Your task to perform on an android device: Show the shopping cart on amazon. Add "usb-c to usb-a" to the cart on amazon Image 0: 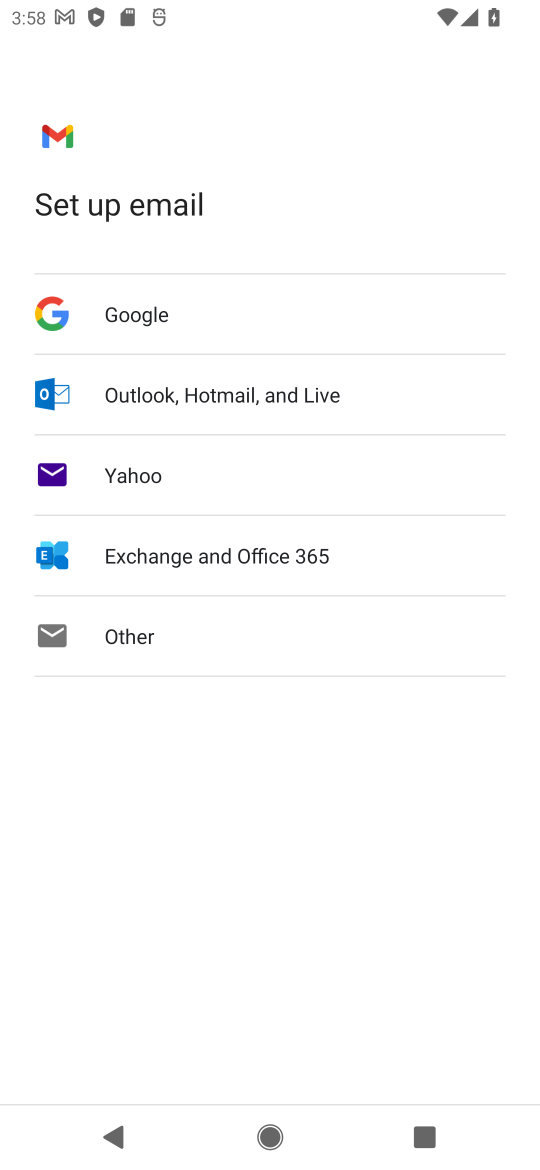
Step 0: press home button
Your task to perform on an android device: Show the shopping cart on amazon. Add "usb-c to usb-a" to the cart on amazon Image 1: 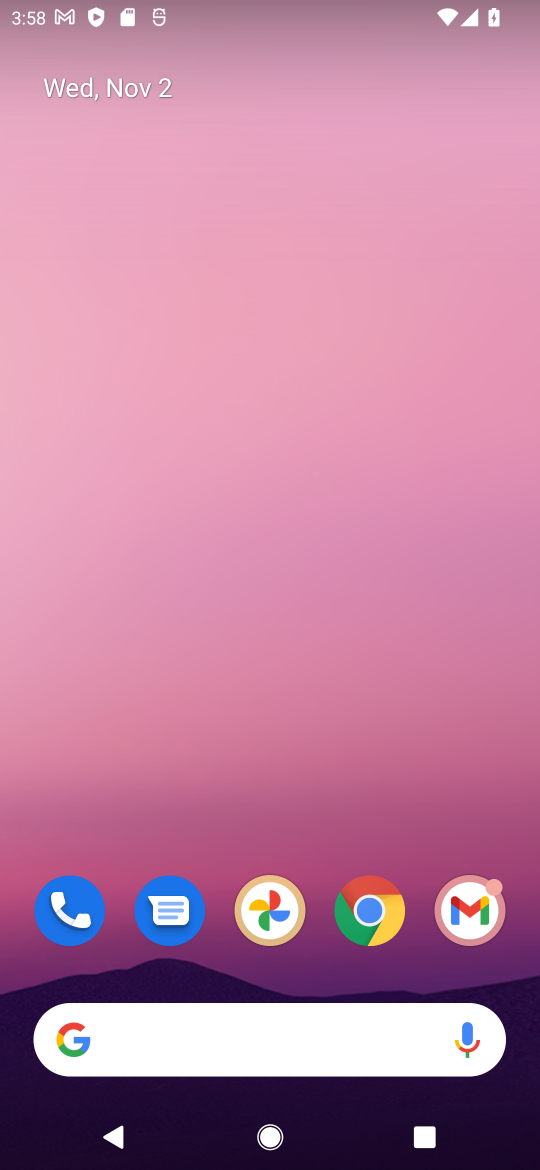
Step 1: click (372, 908)
Your task to perform on an android device: Show the shopping cart on amazon. Add "usb-c to usb-a" to the cart on amazon Image 2: 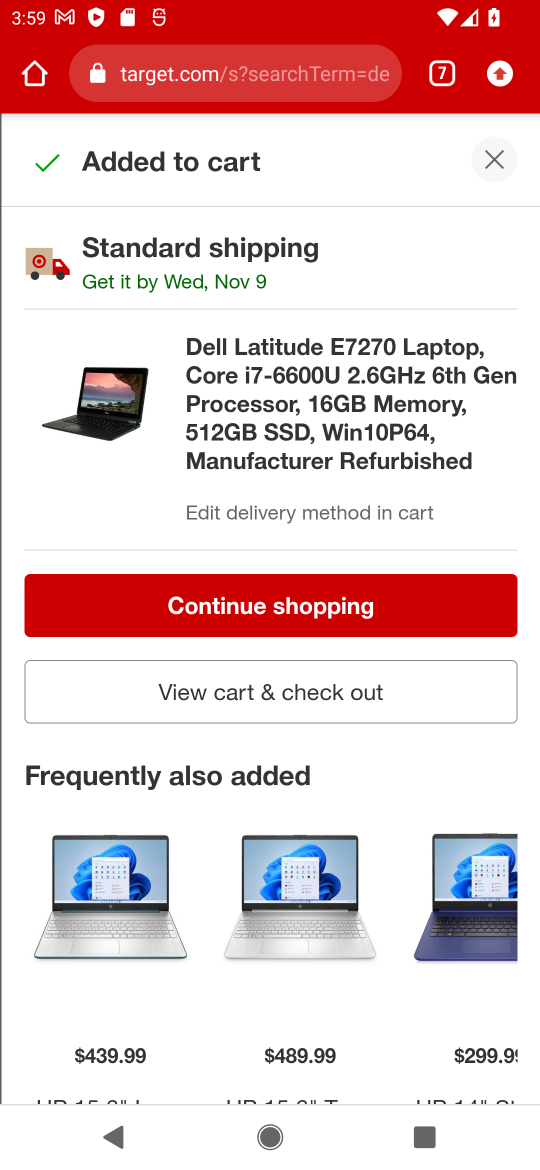
Step 2: click (443, 79)
Your task to perform on an android device: Show the shopping cart on amazon. Add "usb-c to usb-a" to the cart on amazon Image 3: 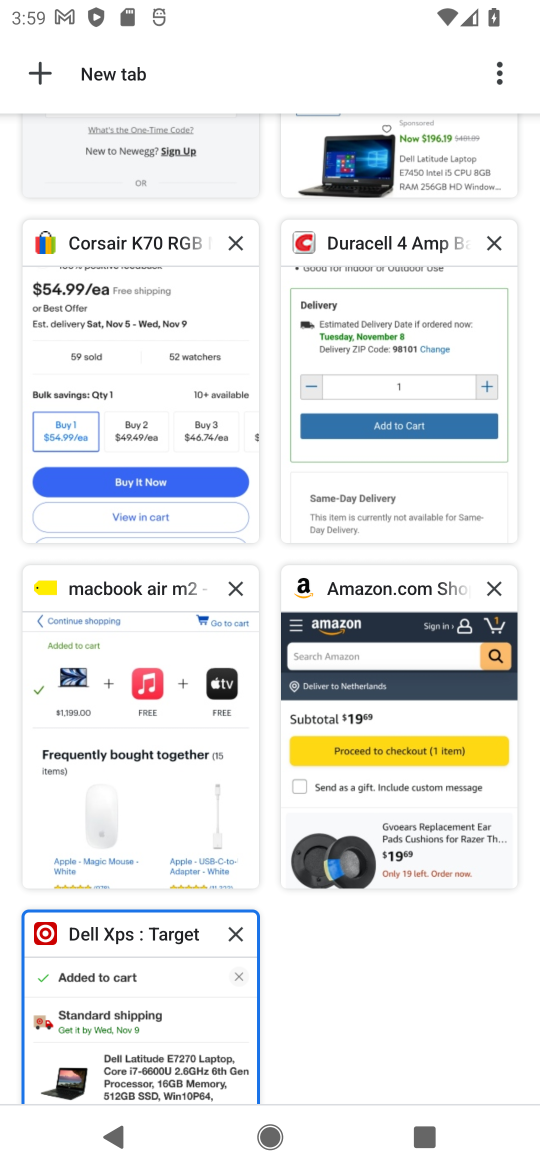
Step 3: click (330, 704)
Your task to perform on an android device: Show the shopping cart on amazon. Add "usb-c to usb-a" to the cart on amazon Image 4: 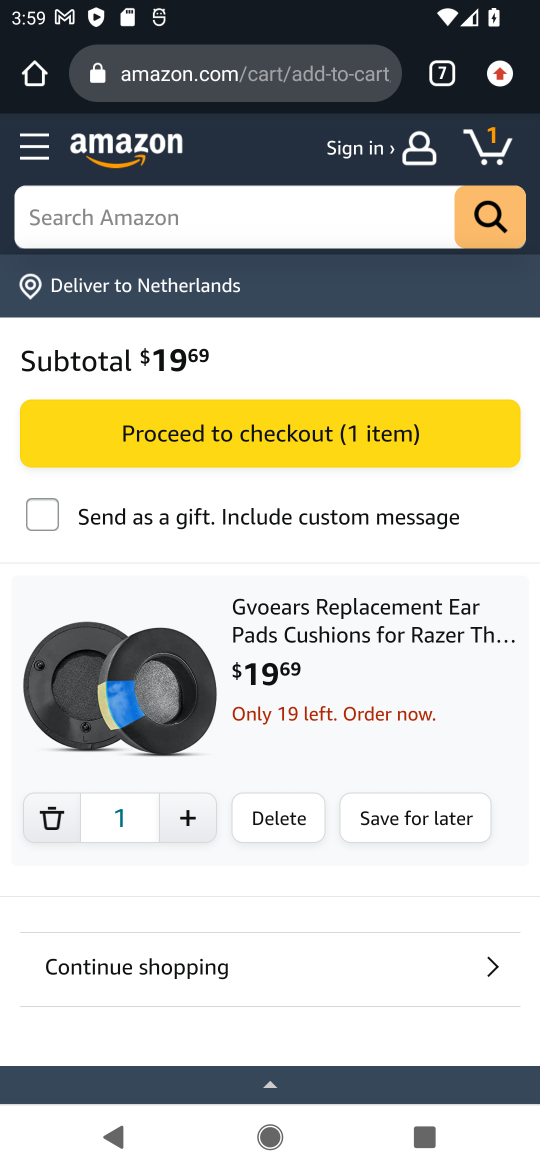
Step 4: click (250, 218)
Your task to perform on an android device: Show the shopping cart on amazon. Add "usb-c to usb-a" to the cart on amazon Image 5: 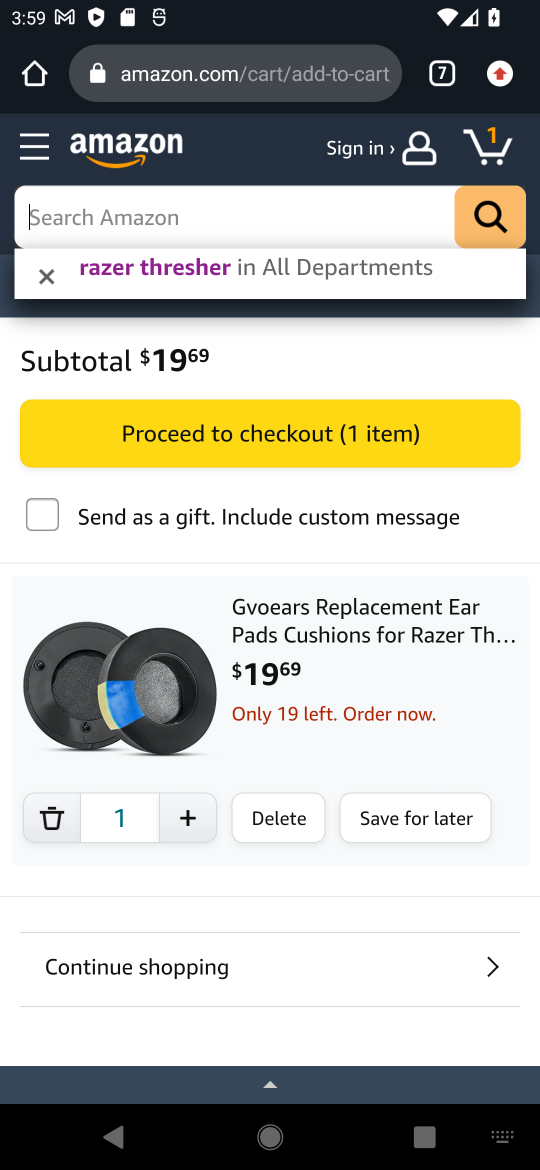
Step 5: type "usb-c to usb-a"
Your task to perform on an android device: Show the shopping cart on amazon. Add "usb-c to usb-a" to the cart on amazon Image 6: 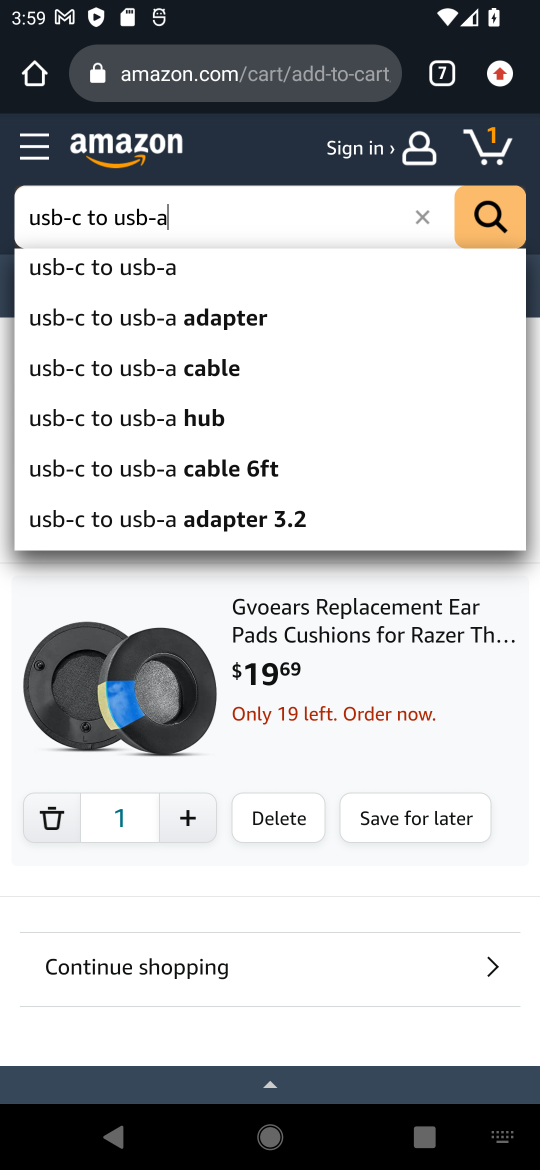
Step 6: click (129, 263)
Your task to perform on an android device: Show the shopping cart on amazon. Add "usb-c to usb-a" to the cart on amazon Image 7: 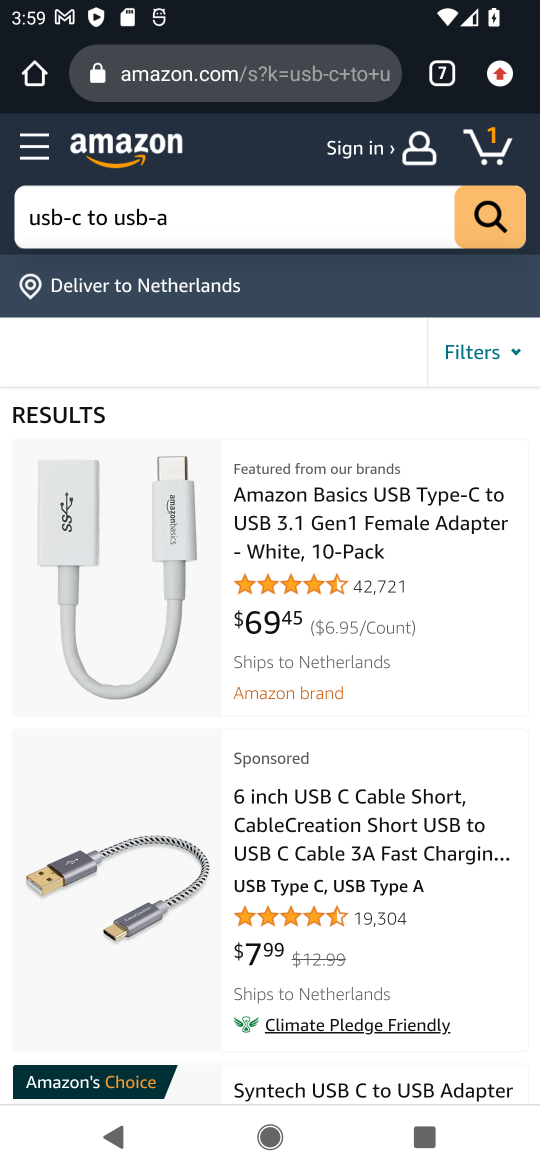
Step 7: click (374, 529)
Your task to perform on an android device: Show the shopping cart on amazon. Add "usb-c to usb-a" to the cart on amazon Image 8: 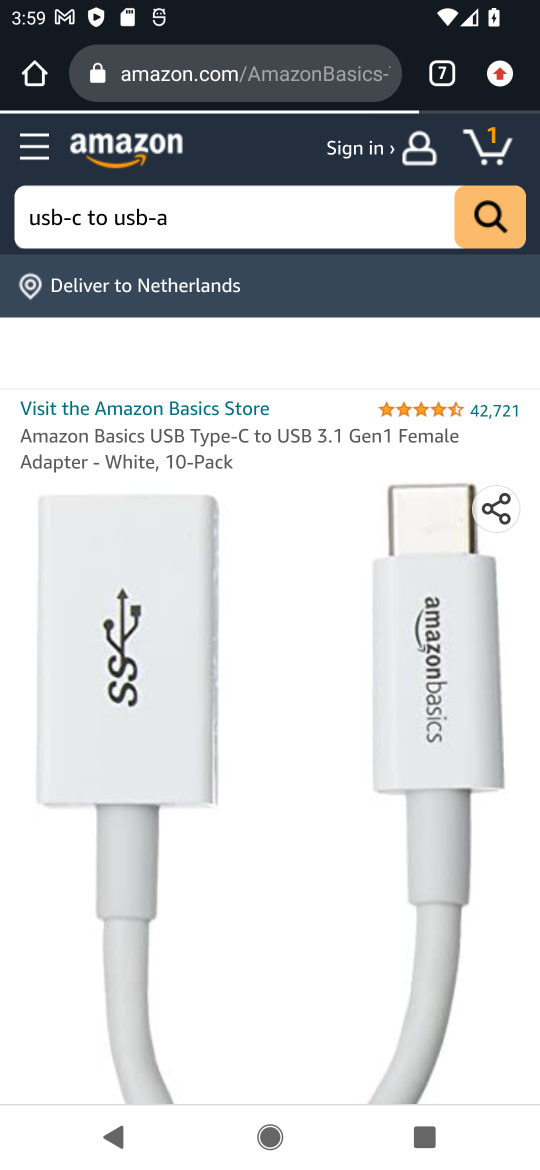
Step 8: drag from (326, 867) to (455, 271)
Your task to perform on an android device: Show the shopping cart on amazon. Add "usb-c to usb-a" to the cart on amazon Image 9: 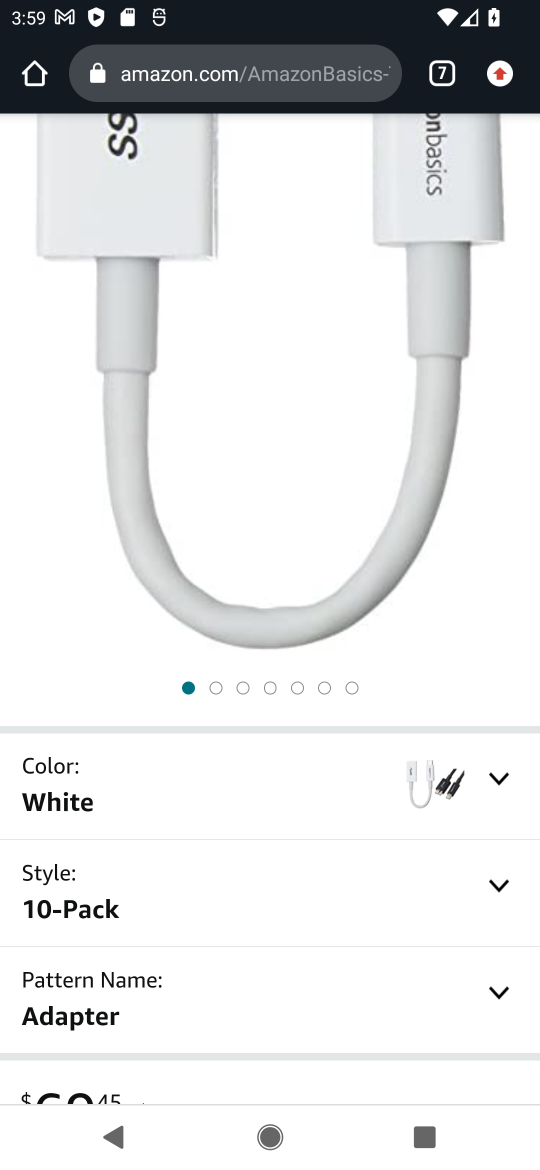
Step 9: drag from (203, 954) to (375, 48)
Your task to perform on an android device: Show the shopping cart on amazon. Add "usb-c to usb-a" to the cart on amazon Image 10: 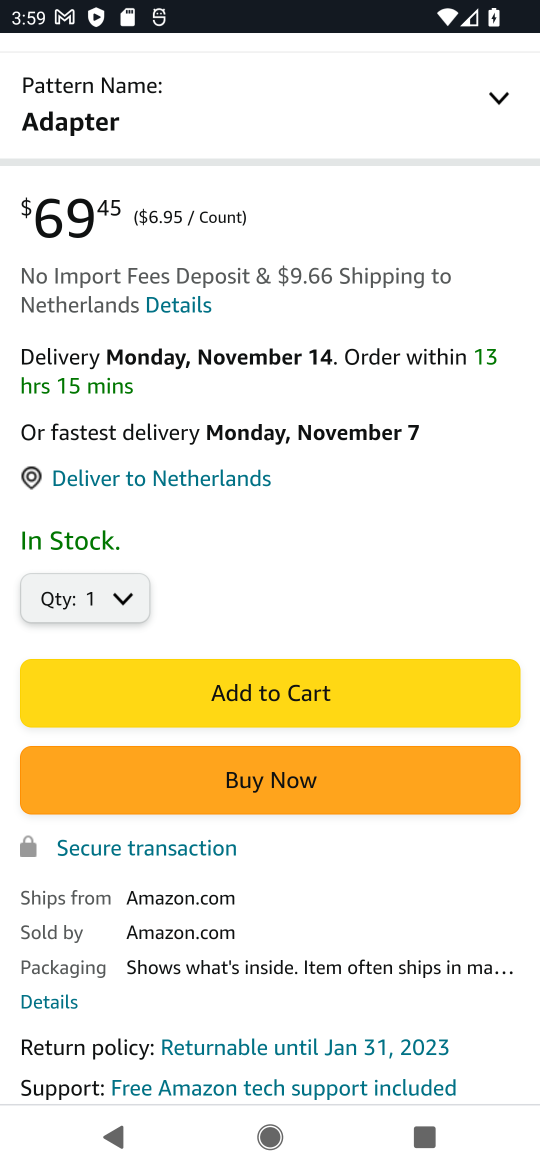
Step 10: click (266, 688)
Your task to perform on an android device: Show the shopping cart on amazon. Add "usb-c to usb-a" to the cart on amazon Image 11: 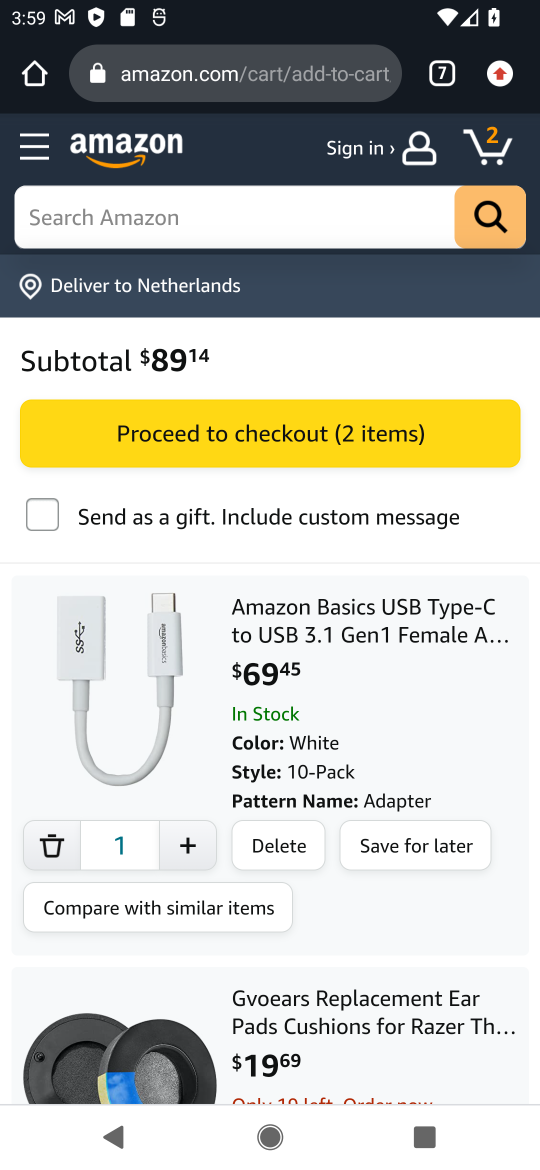
Step 11: task complete